Your task to perform on an android device: open app "Spotify: Music and Podcasts" Image 0: 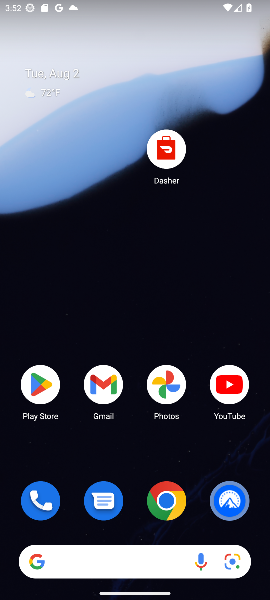
Step 0: click (44, 394)
Your task to perform on an android device: open app "Spotify: Music and Podcasts" Image 1: 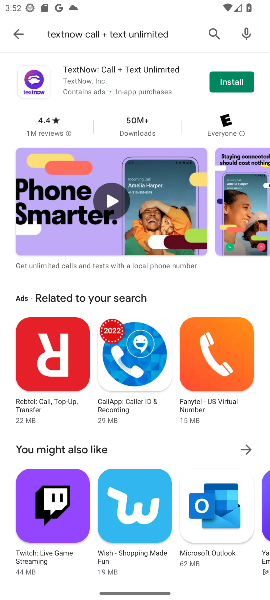
Step 1: click (206, 33)
Your task to perform on an android device: open app "Spotify: Music and Podcasts" Image 2: 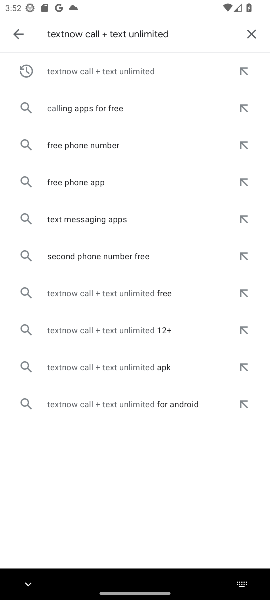
Step 2: click (251, 40)
Your task to perform on an android device: open app "Spotify: Music and Podcasts" Image 3: 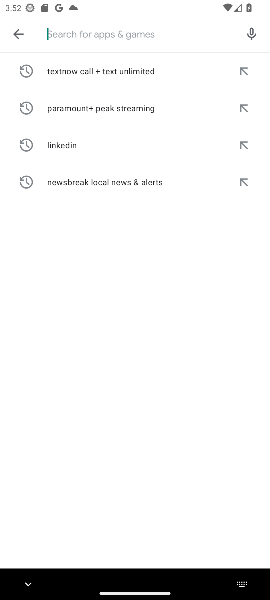
Step 3: type "Spotify: Music and Podcasts"
Your task to perform on an android device: open app "Spotify: Music and Podcasts" Image 4: 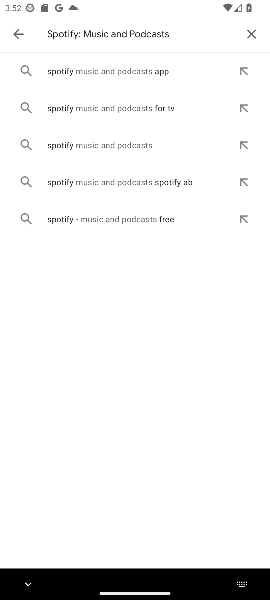
Step 4: click (81, 72)
Your task to perform on an android device: open app "Spotify: Music and Podcasts" Image 5: 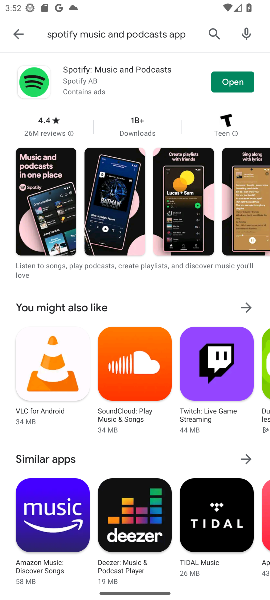
Step 5: click (226, 82)
Your task to perform on an android device: open app "Spotify: Music and Podcasts" Image 6: 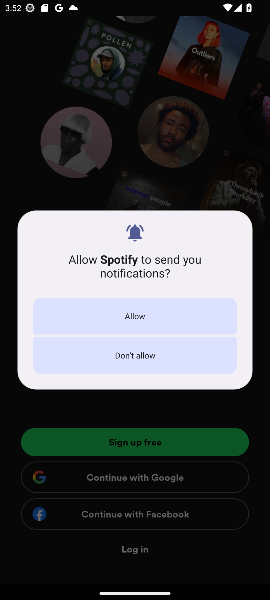
Step 6: task complete